Your task to perform on an android device: allow notifications from all sites in the chrome app Image 0: 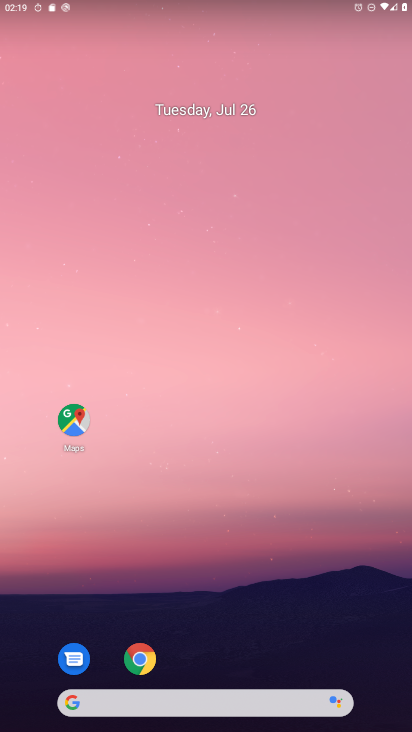
Step 0: click (281, 131)
Your task to perform on an android device: allow notifications from all sites in the chrome app Image 1: 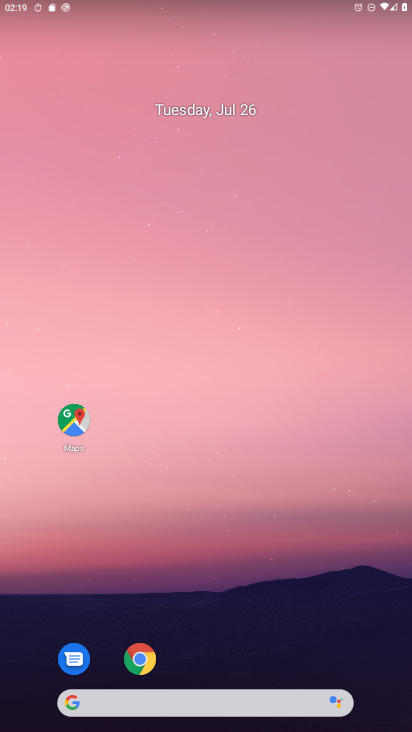
Step 1: drag from (260, 543) to (247, 203)
Your task to perform on an android device: allow notifications from all sites in the chrome app Image 2: 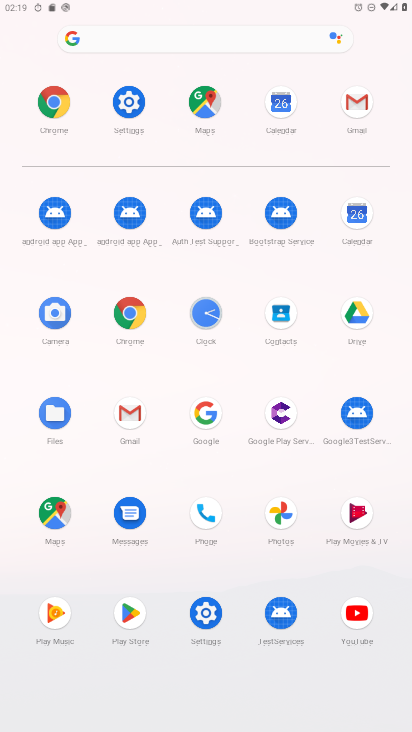
Step 2: click (126, 340)
Your task to perform on an android device: allow notifications from all sites in the chrome app Image 3: 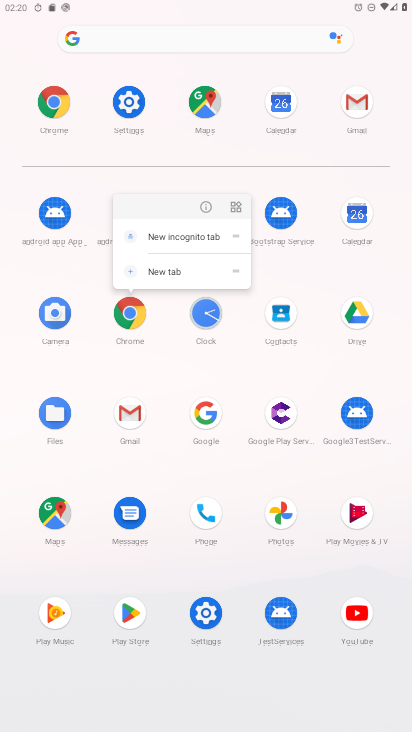
Step 3: click (204, 204)
Your task to perform on an android device: allow notifications from all sites in the chrome app Image 4: 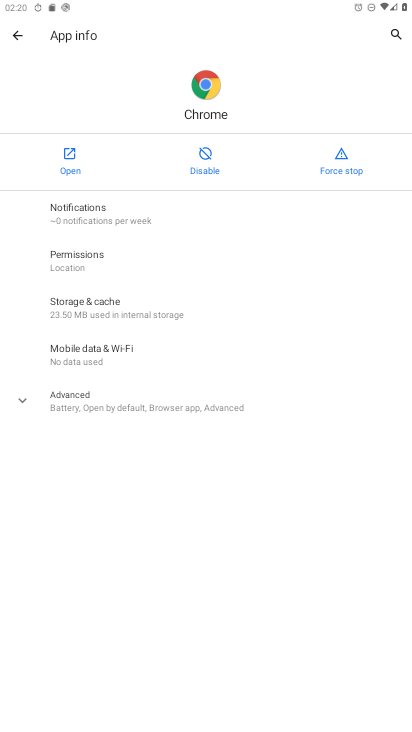
Step 4: click (95, 214)
Your task to perform on an android device: allow notifications from all sites in the chrome app Image 5: 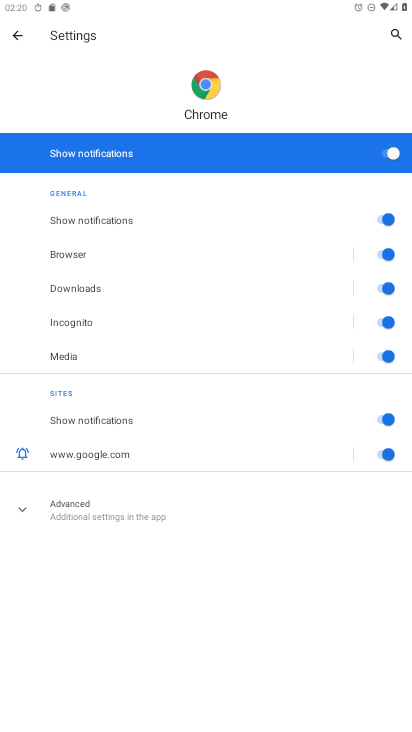
Step 5: click (113, 514)
Your task to perform on an android device: allow notifications from all sites in the chrome app Image 6: 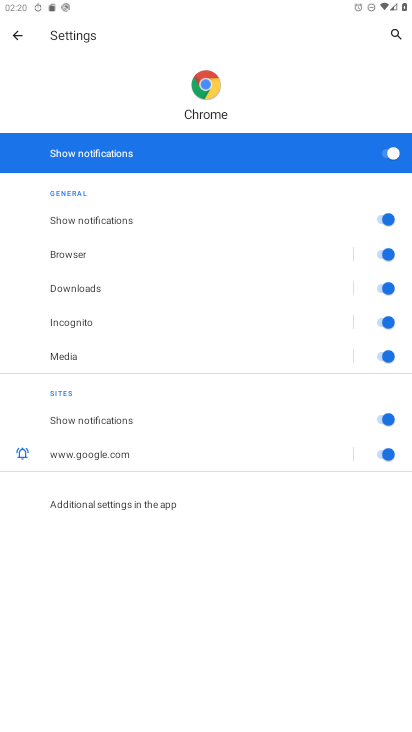
Step 6: task complete